Your task to perform on an android device: open app "Spotify: Music and Podcasts" (install if not already installed) and enter user name: "principled@inbox.com" and password: "arrests" Image 0: 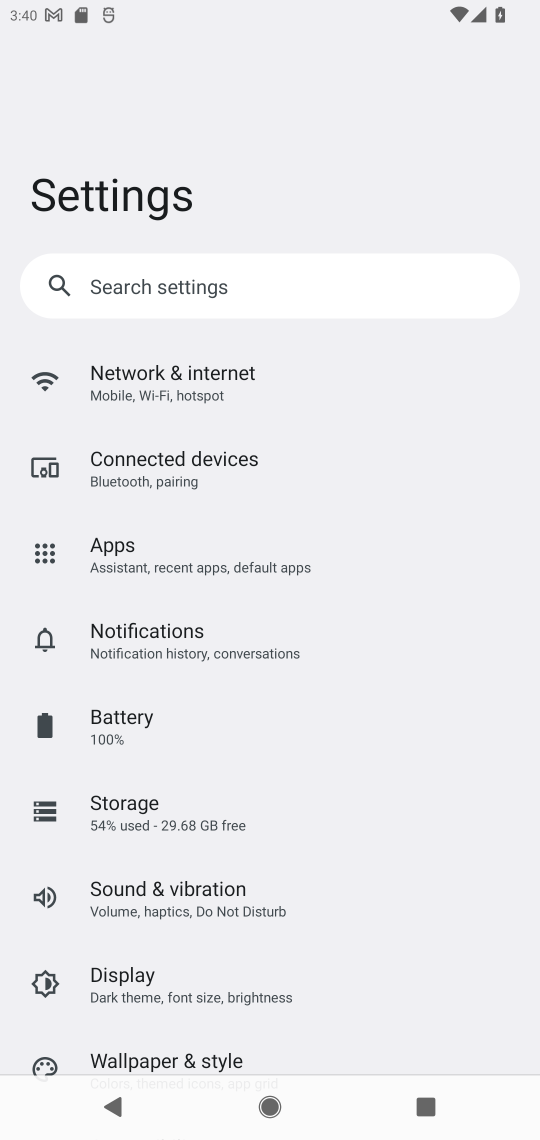
Step 0: press home button
Your task to perform on an android device: open app "Spotify: Music and Podcasts" (install if not already installed) and enter user name: "principled@inbox.com" and password: "arrests" Image 1: 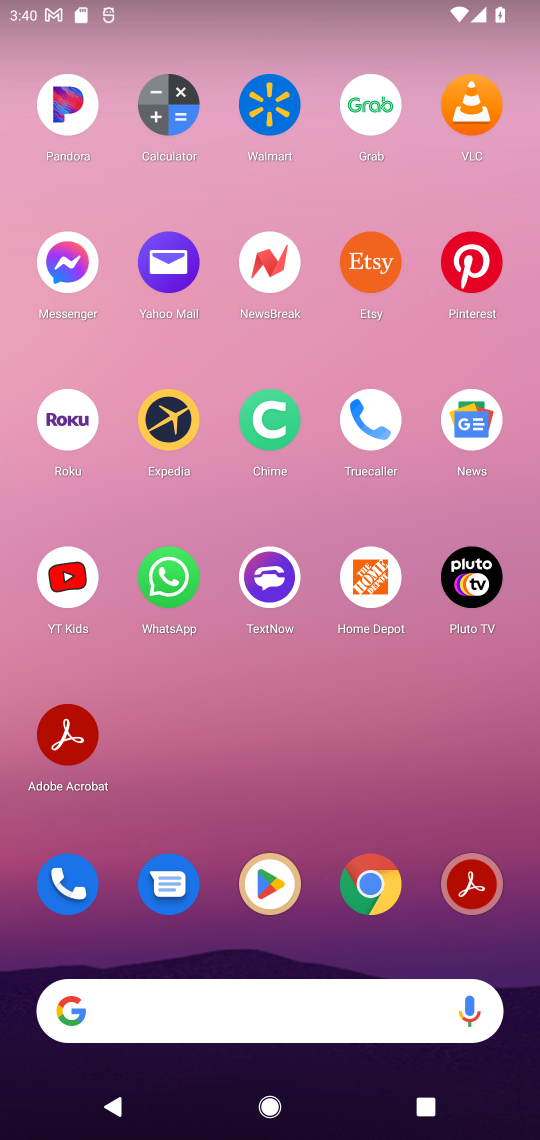
Step 1: click (271, 876)
Your task to perform on an android device: open app "Spotify: Music and Podcasts" (install if not already installed) and enter user name: "principled@inbox.com" and password: "arrests" Image 2: 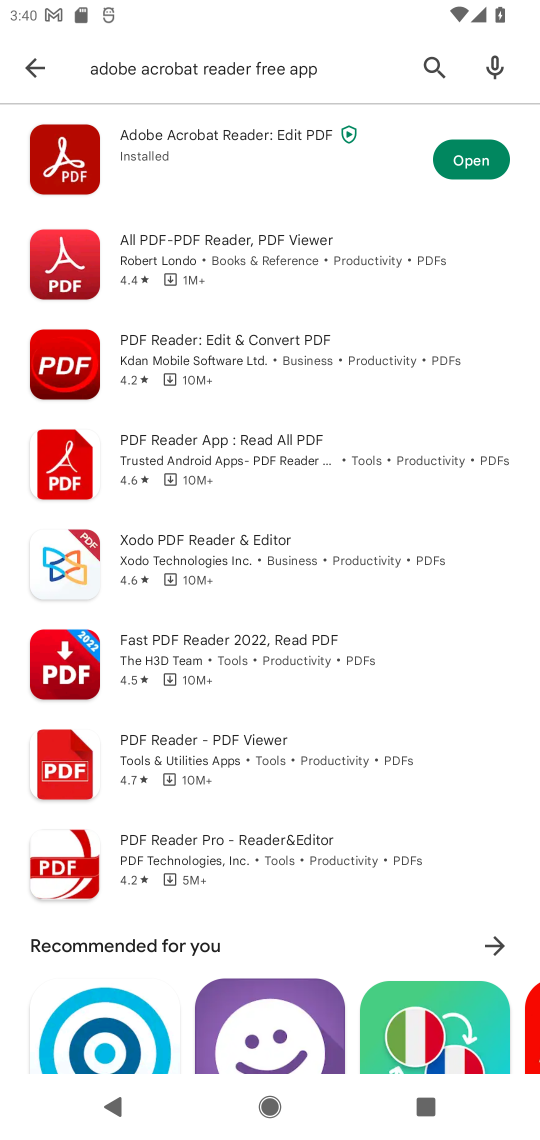
Step 2: click (244, 76)
Your task to perform on an android device: open app "Spotify: Music and Podcasts" (install if not already installed) and enter user name: "principled@inbox.com" and password: "arrests" Image 3: 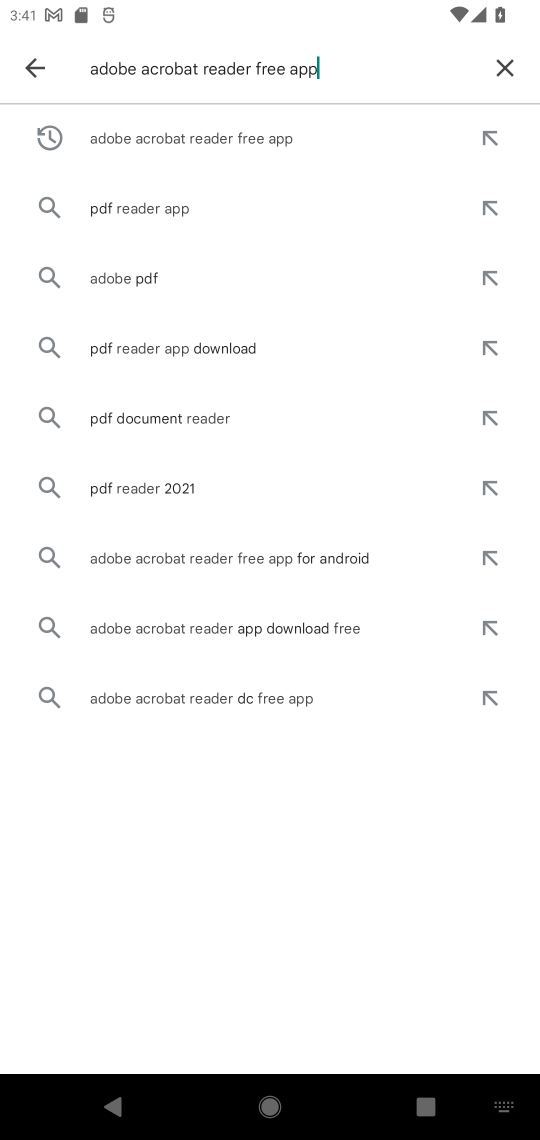
Step 3: click (505, 70)
Your task to perform on an android device: open app "Spotify: Music and Podcasts" (install if not already installed) and enter user name: "principled@inbox.com" and password: "arrests" Image 4: 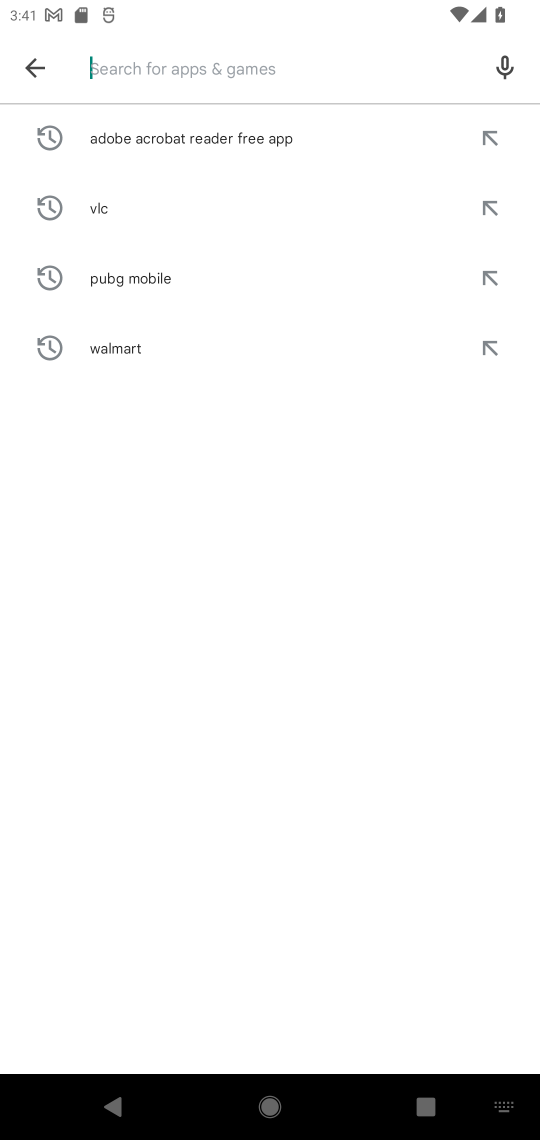
Step 4: type "spotify"
Your task to perform on an android device: open app "Spotify: Music and Podcasts" (install if not already installed) and enter user name: "principled@inbox.com" and password: "arrests" Image 5: 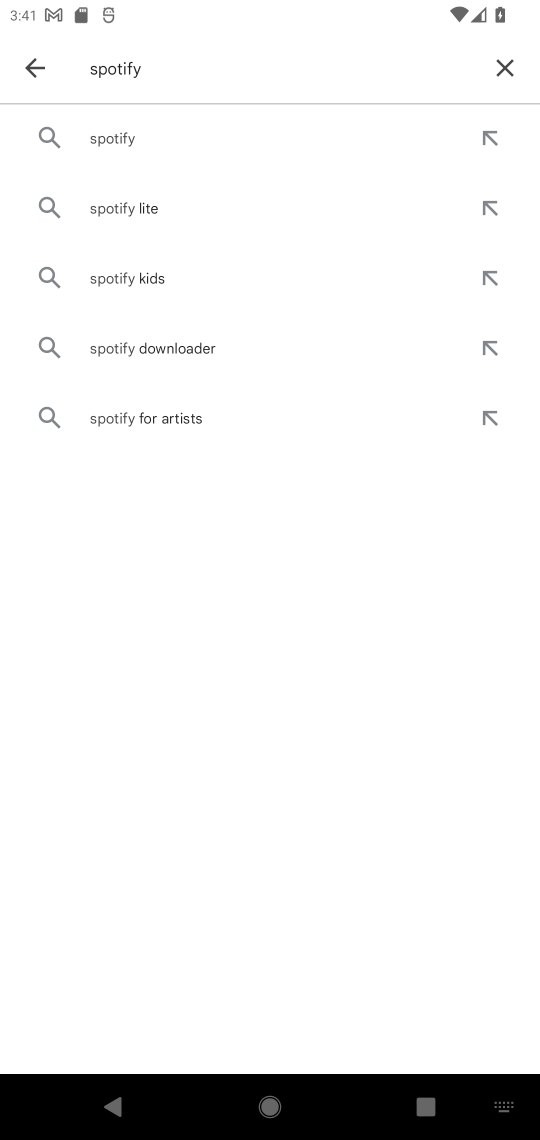
Step 5: click (138, 138)
Your task to perform on an android device: open app "Spotify: Music and Podcasts" (install if not already installed) and enter user name: "principled@inbox.com" and password: "arrests" Image 6: 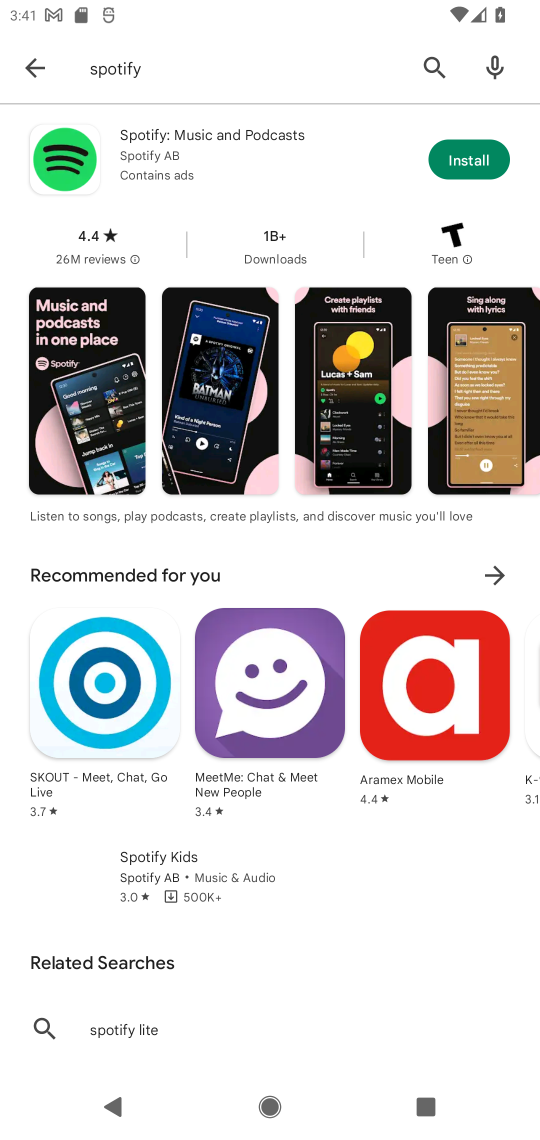
Step 6: click (482, 162)
Your task to perform on an android device: open app "Spotify: Music and Podcasts" (install if not already installed) and enter user name: "principled@inbox.com" and password: "arrests" Image 7: 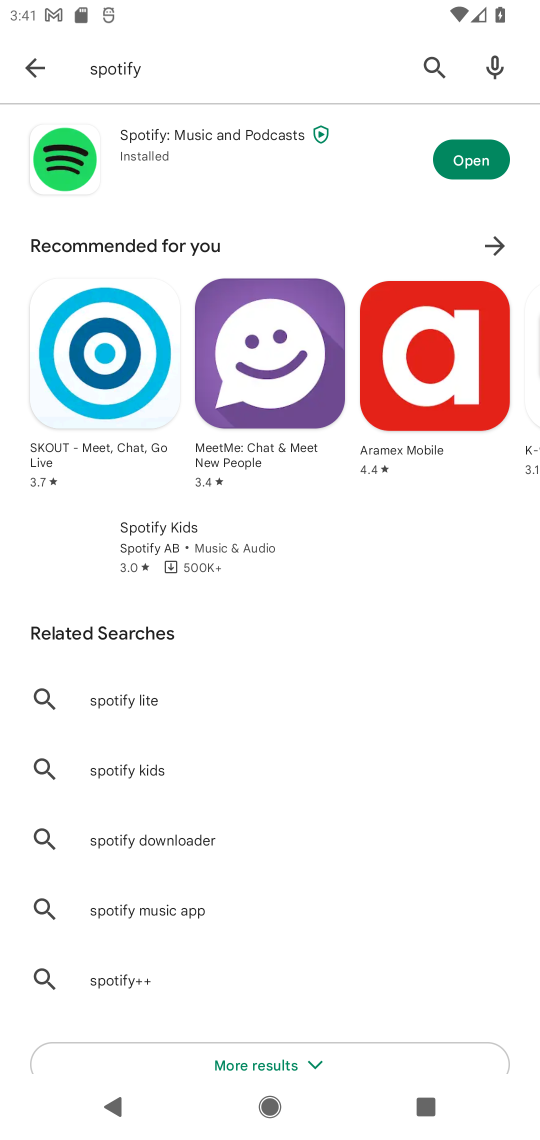
Step 7: click (458, 156)
Your task to perform on an android device: open app "Spotify: Music and Podcasts" (install if not already installed) and enter user name: "principled@inbox.com" and password: "arrests" Image 8: 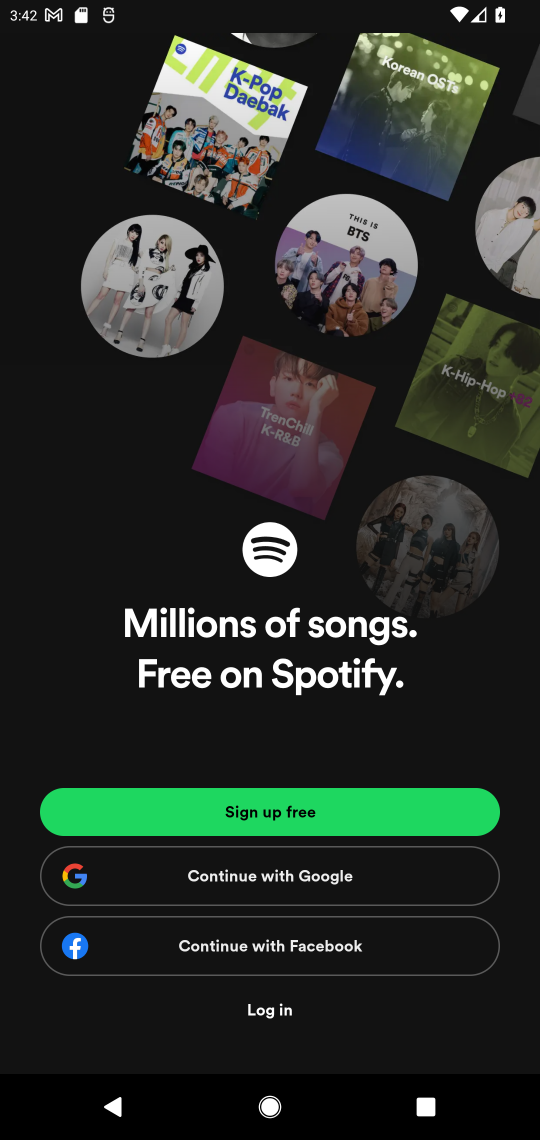
Step 8: click (274, 1016)
Your task to perform on an android device: open app "Spotify: Music and Podcasts" (install if not already installed) and enter user name: "principled@inbox.com" and password: "arrests" Image 9: 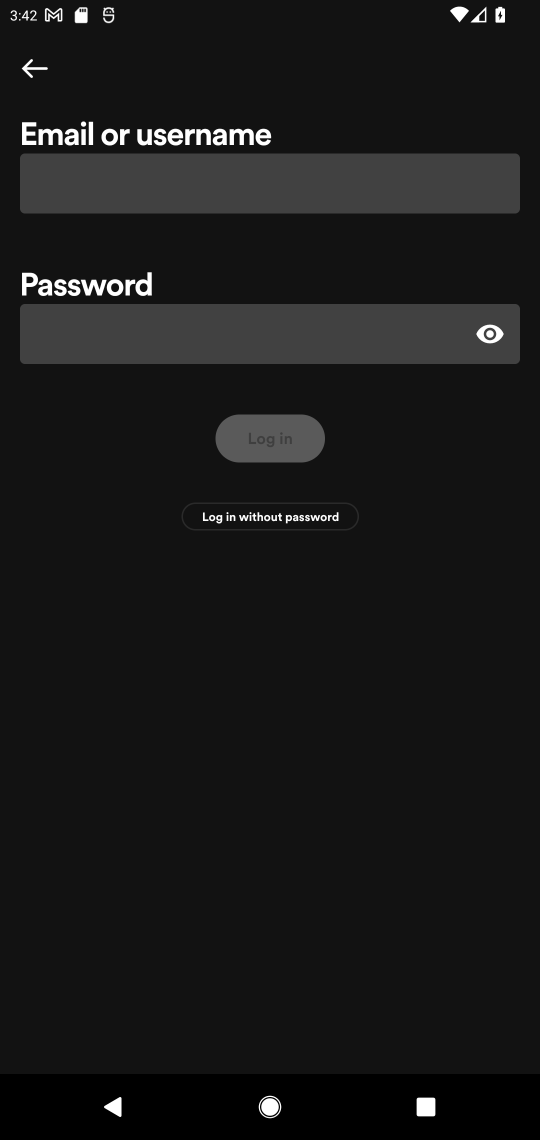
Step 9: click (227, 202)
Your task to perform on an android device: open app "Spotify: Music and Podcasts" (install if not already installed) and enter user name: "principled@inbox.com" and password: "arrests" Image 10: 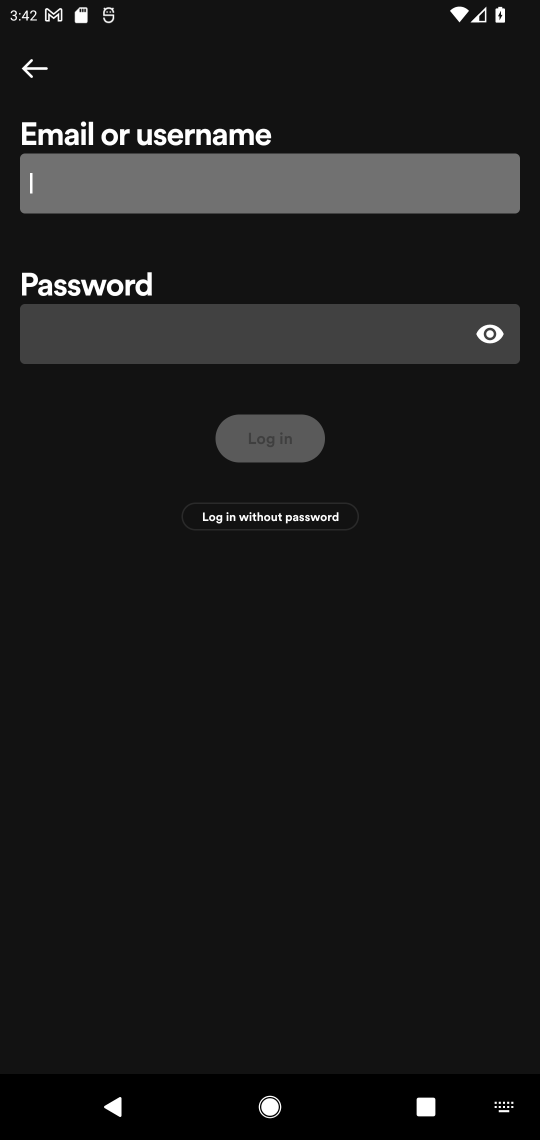
Step 10: type "principled@inbox.com"
Your task to perform on an android device: open app "Spotify: Music and Podcasts" (install if not already installed) and enter user name: "principled@inbox.com" and password: "arrests" Image 11: 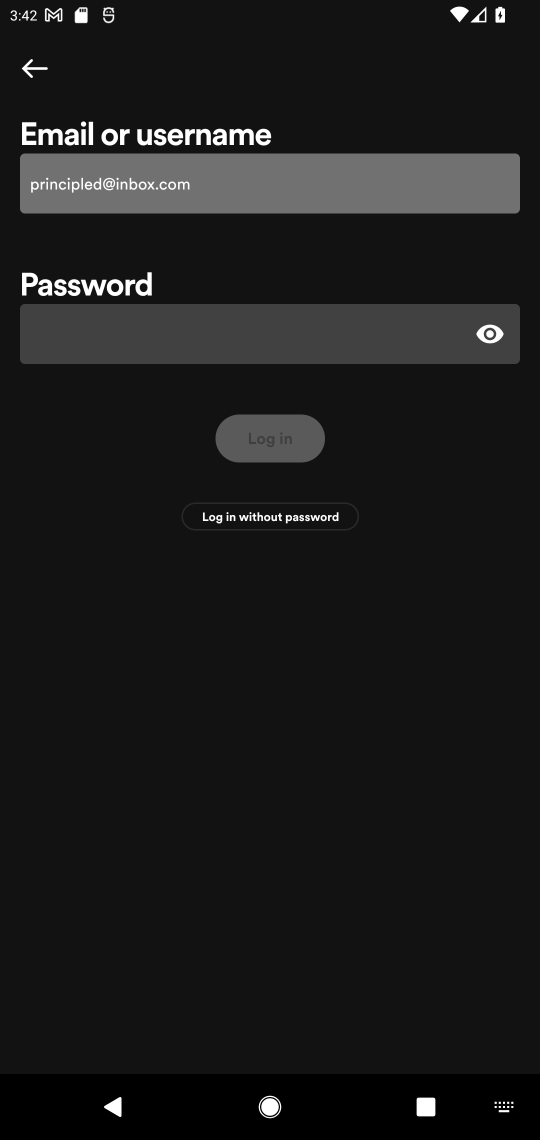
Step 11: click (216, 337)
Your task to perform on an android device: open app "Spotify: Music and Podcasts" (install if not already installed) and enter user name: "principled@inbox.com" and password: "arrests" Image 12: 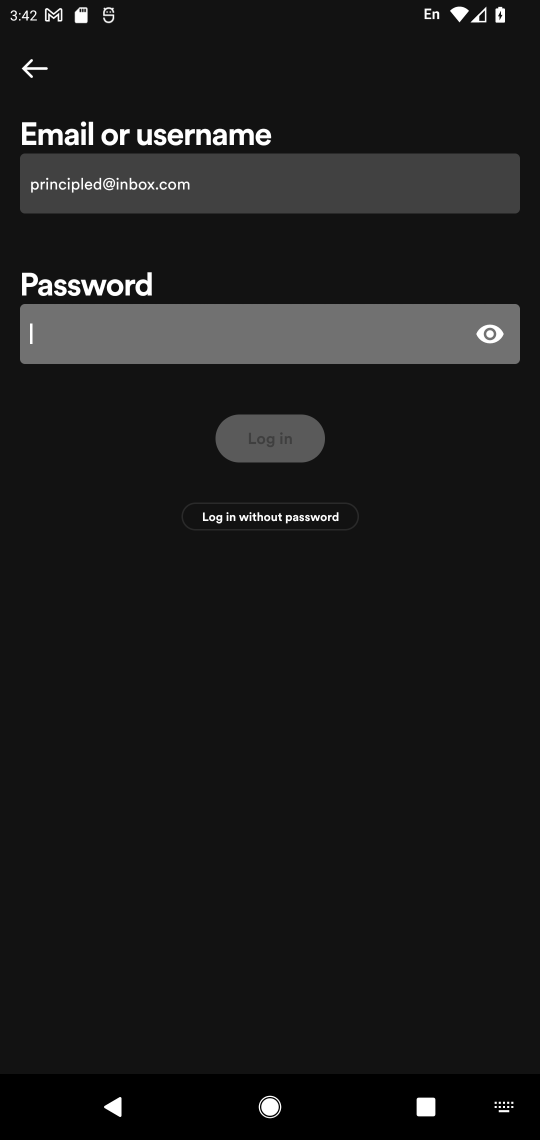
Step 12: type "arrests"
Your task to perform on an android device: open app "Spotify: Music and Podcasts" (install if not already installed) and enter user name: "principled@inbox.com" and password: "arrests" Image 13: 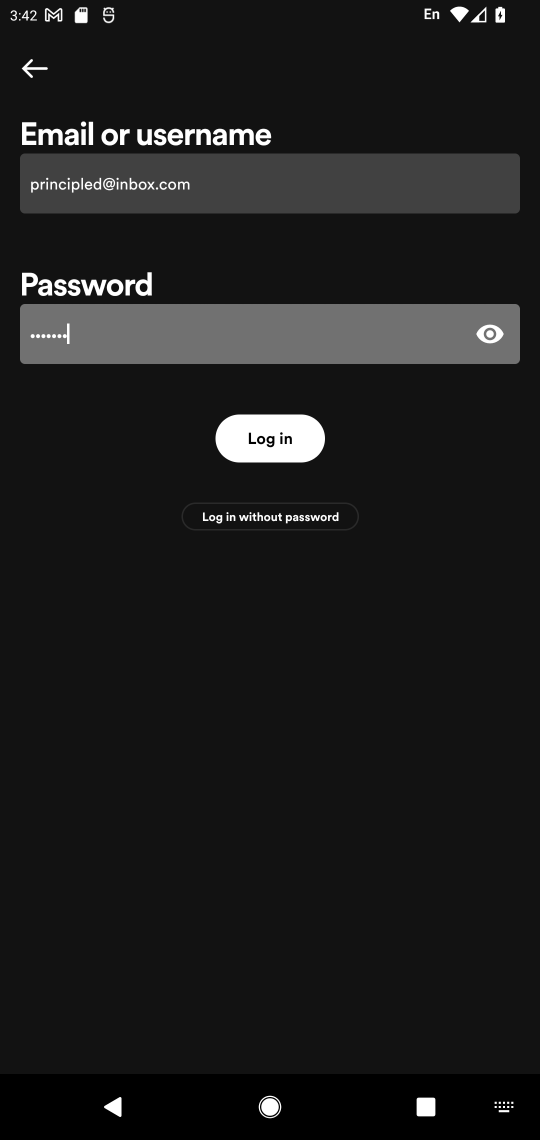
Step 13: click (283, 434)
Your task to perform on an android device: open app "Spotify: Music and Podcasts" (install if not already installed) and enter user name: "principled@inbox.com" and password: "arrests" Image 14: 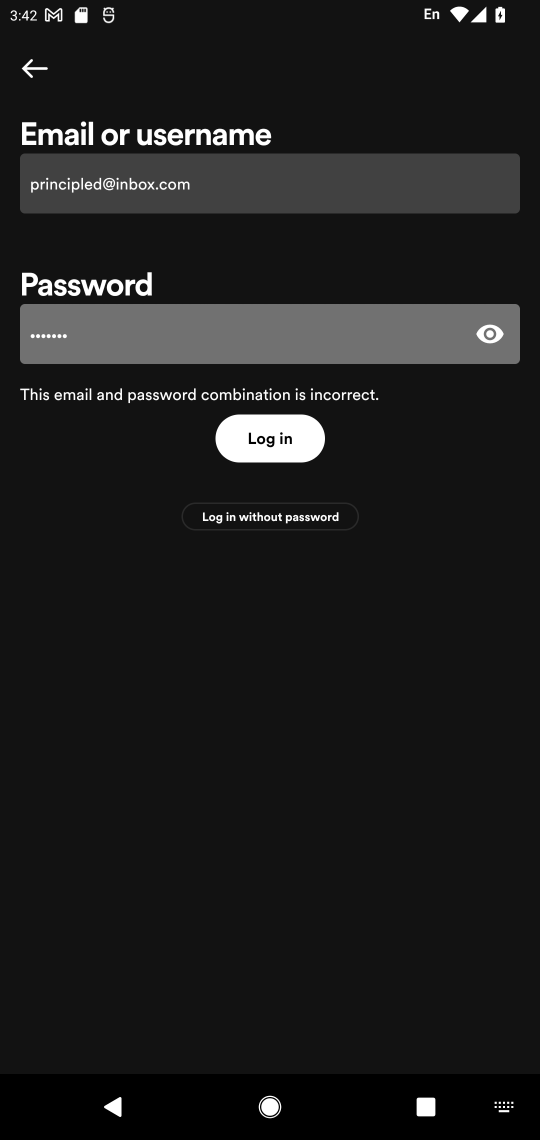
Step 14: task complete